Your task to perform on an android device: toggle location history Image 0: 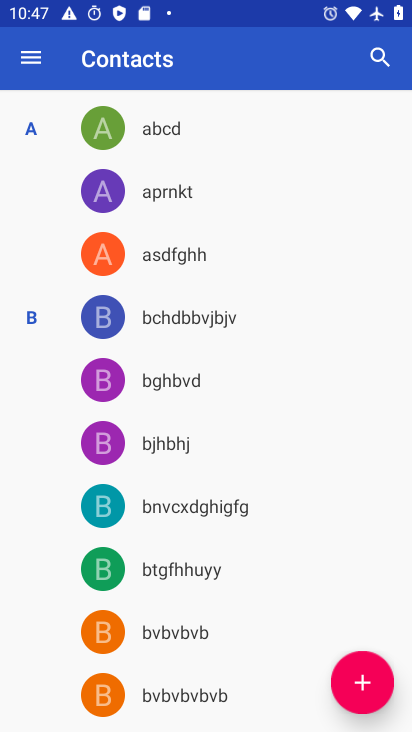
Step 0: press home button
Your task to perform on an android device: toggle location history Image 1: 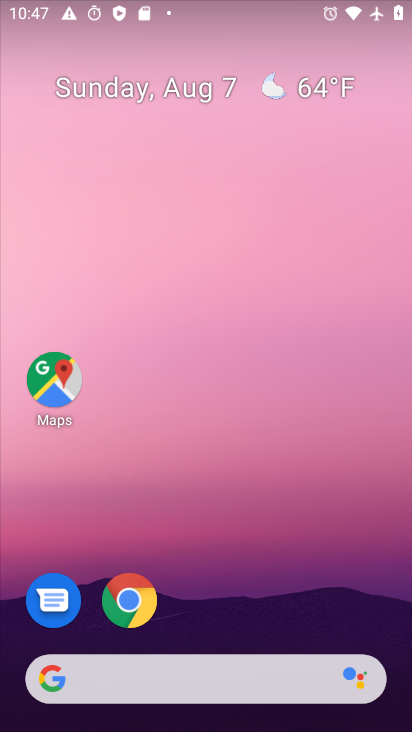
Step 1: drag from (278, 641) to (317, 287)
Your task to perform on an android device: toggle location history Image 2: 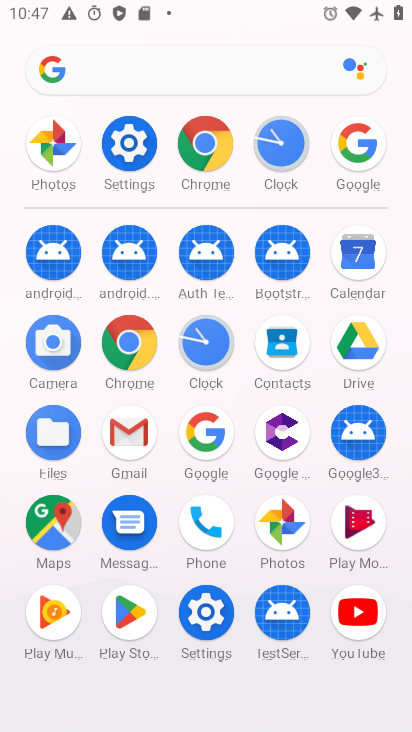
Step 2: click (119, 158)
Your task to perform on an android device: toggle location history Image 3: 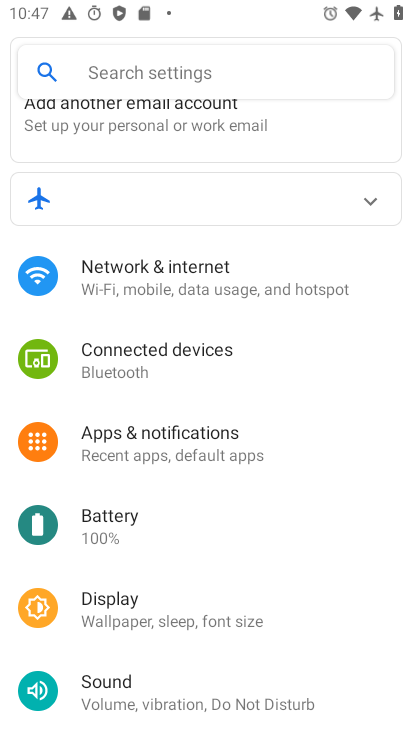
Step 3: drag from (254, 689) to (292, 384)
Your task to perform on an android device: toggle location history Image 4: 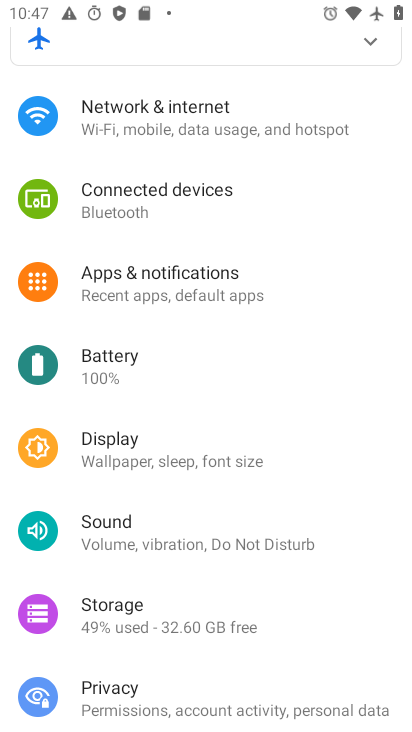
Step 4: drag from (202, 685) to (242, 262)
Your task to perform on an android device: toggle location history Image 5: 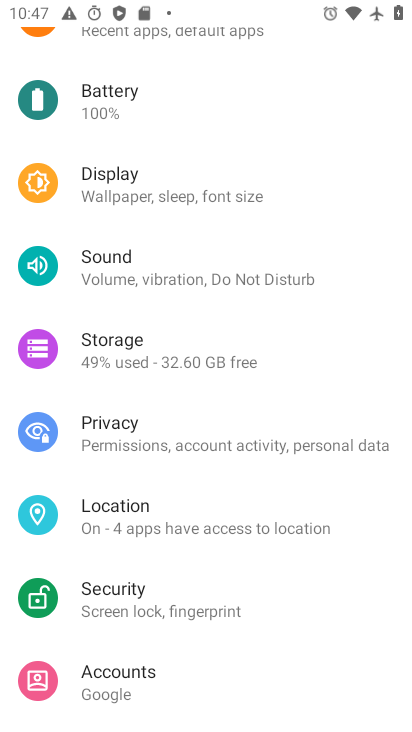
Step 5: click (203, 514)
Your task to perform on an android device: toggle location history Image 6: 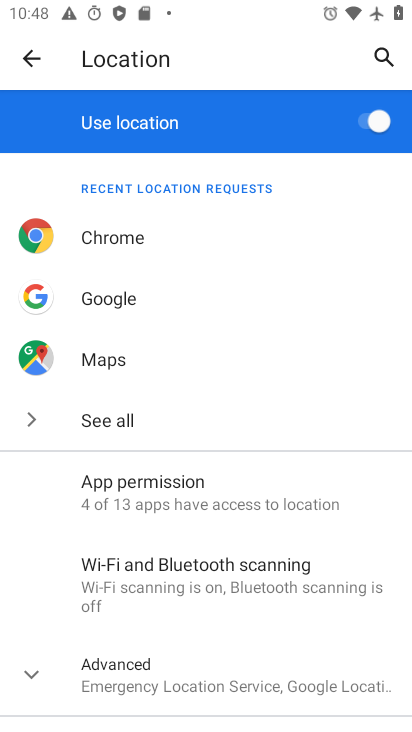
Step 6: drag from (274, 638) to (346, 334)
Your task to perform on an android device: toggle location history Image 7: 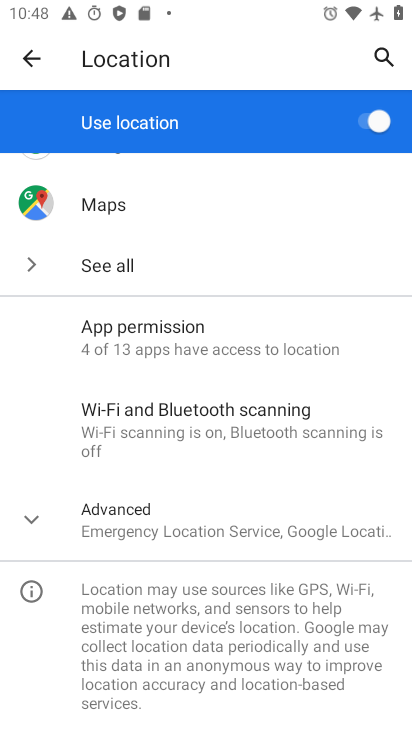
Step 7: click (213, 523)
Your task to perform on an android device: toggle location history Image 8: 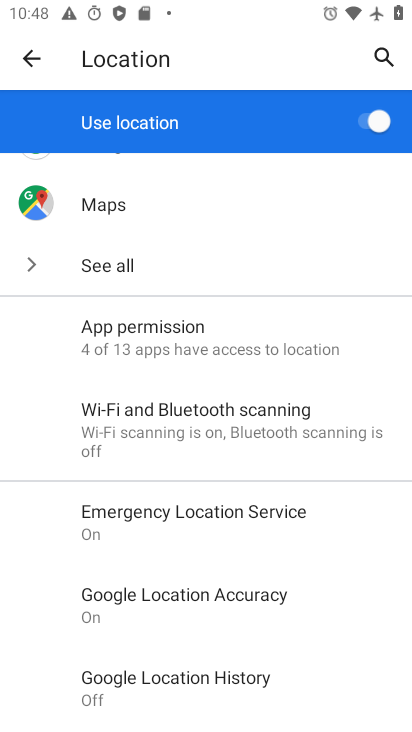
Step 8: click (230, 674)
Your task to perform on an android device: toggle location history Image 9: 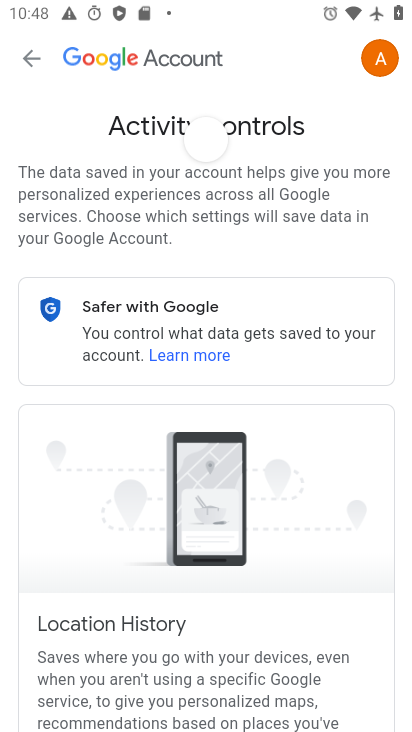
Step 9: task complete